Your task to perform on an android device: Open ESPN.com Image 0: 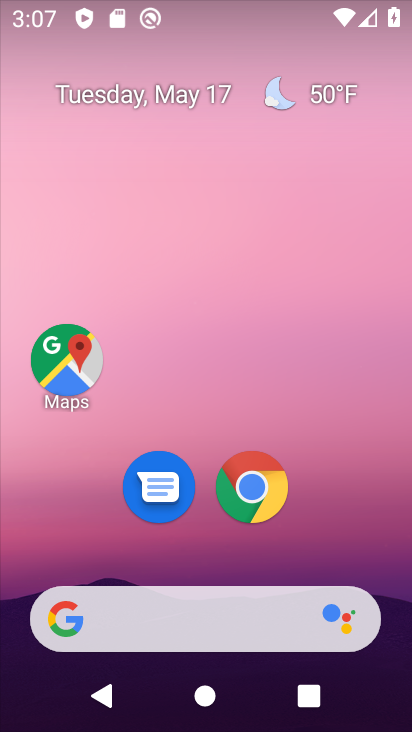
Step 0: click (252, 487)
Your task to perform on an android device: Open ESPN.com Image 1: 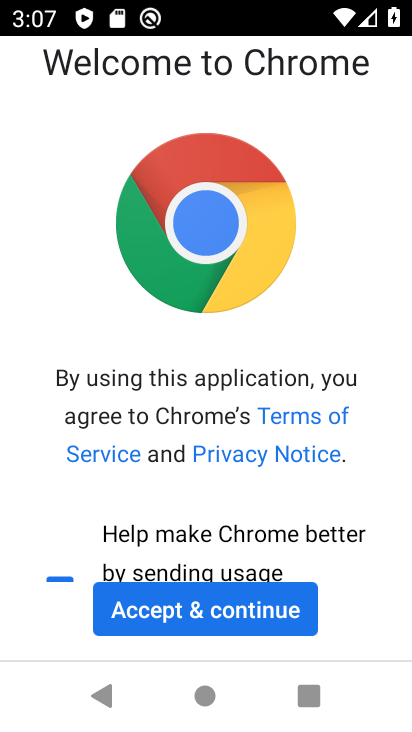
Step 1: click (197, 616)
Your task to perform on an android device: Open ESPN.com Image 2: 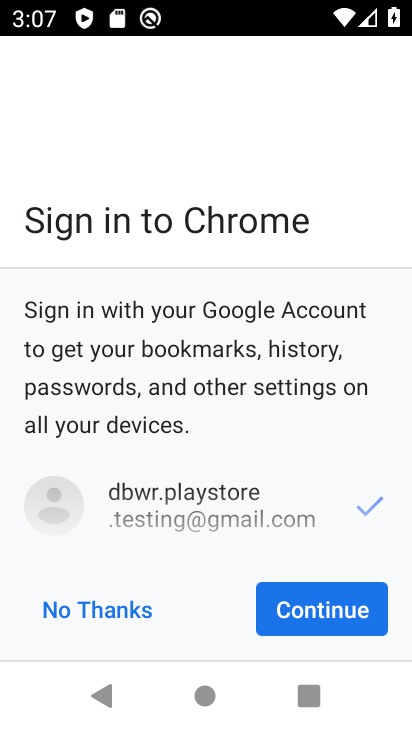
Step 2: click (305, 605)
Your task to perform on an android device: Open ESPN.com Image 3: 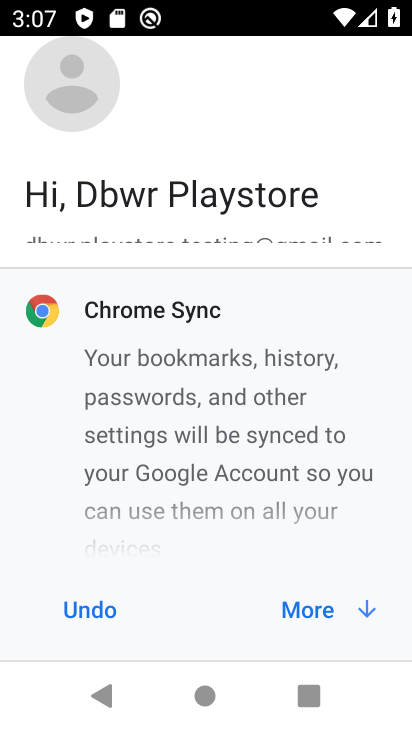
Step 3: click (324, 610)
Your task to perform on an android device: Open ESPN.com Image 4: 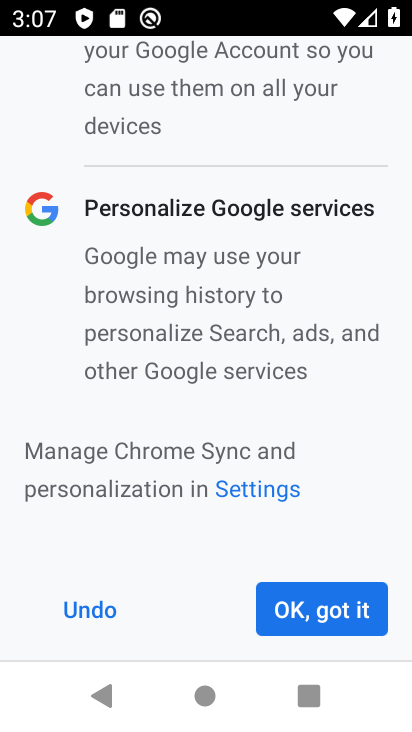
Step 4: click (314, 611)
Your task to perform on an android device: Open ESPN.com Image 5: 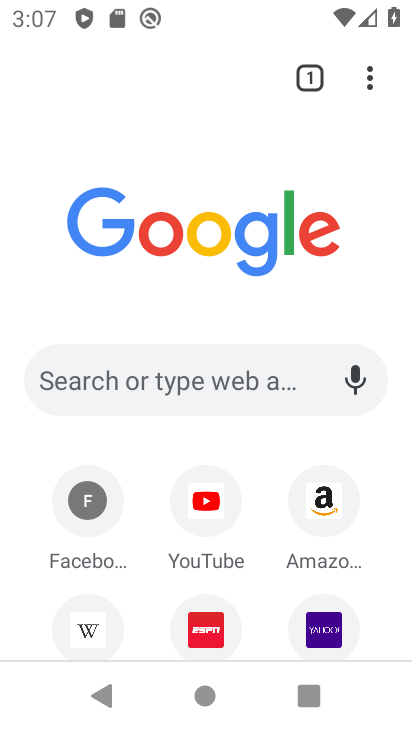
Step 5: click (118, 373)
Your task to perform on an android device: Open ESPN.com Image 6: 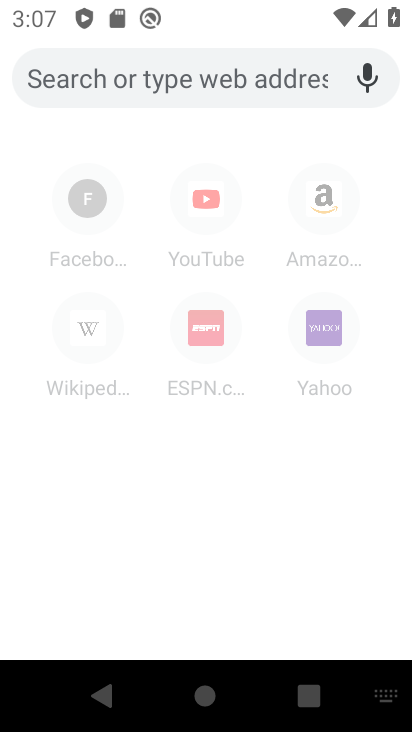
Step 6: type "espn.com"
Your task to perform on an android device: Open ESPN.com Image 7: 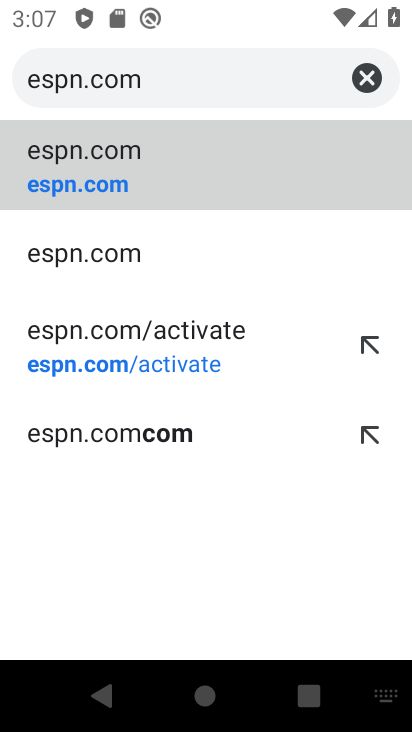
Step 7: click (79, 165)
Your task to perform on an android device: Open ESPN.com Image 8: 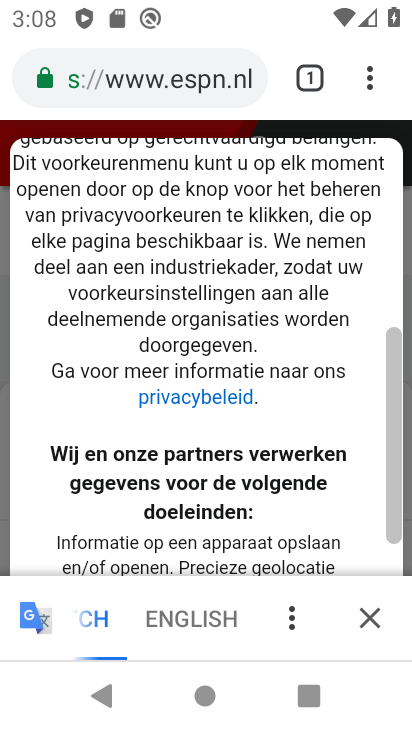
Step 8: task complete